Your task to perform on an android device: Open Android settings Image 0: 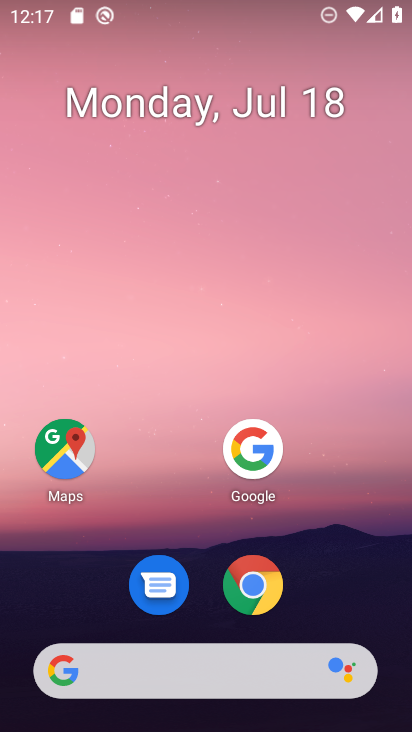
Step 0: drag from (196, 664) to (409, 125)
Your task to perform on an android device: Open Android settings Image 1: 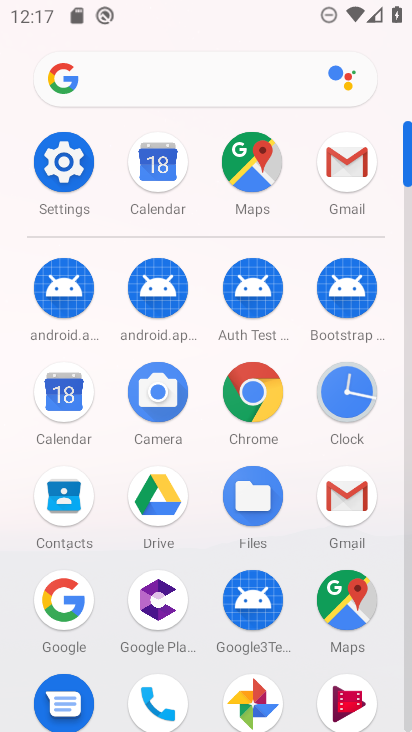
Step 1: click (35, 163)
Your task to perform on an android device: Open Android settings Image 2: 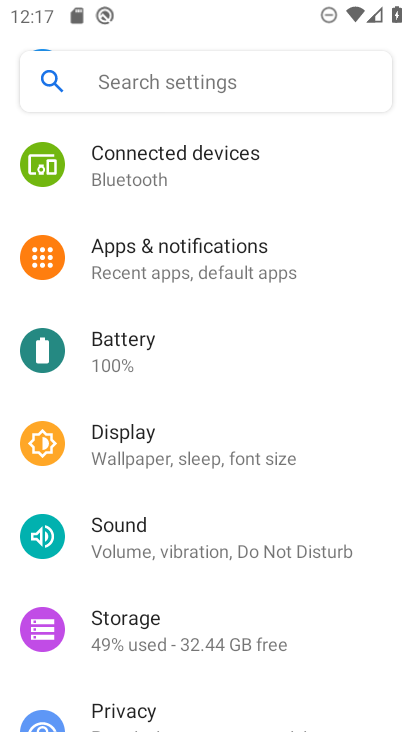
Step 2: drag from (288, 668) to (410, 205)
Your task to perform on an android device: Open Android settings Image 3: 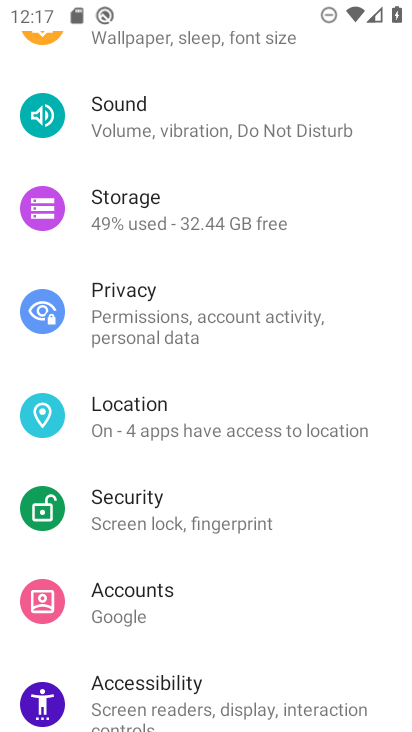
Step 3: drag from (284, 646) to (408, 201)
Your task to perform on an android device: Open Android settings Image 4: 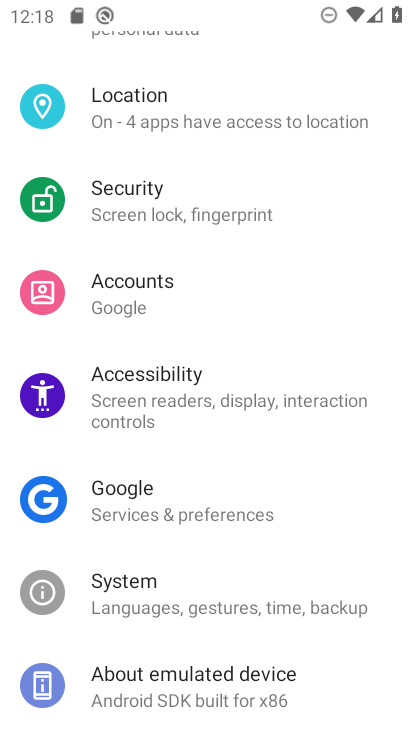
Step 4: click (168, 688)
Your task to perform on an android device: Open Android settings Image 5: 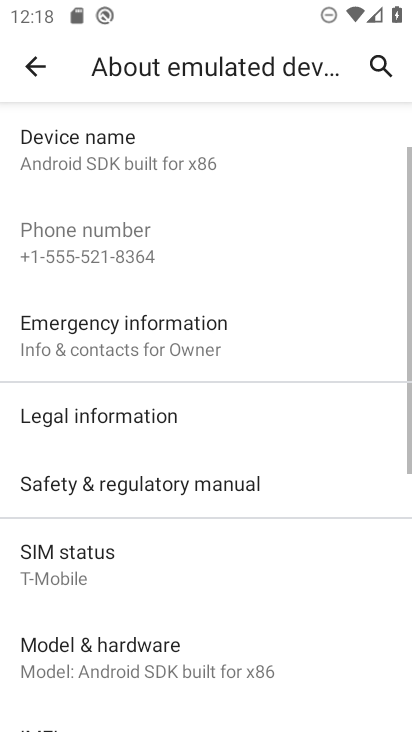
Step 5: task complete